Your task to perform on an android device: toggle notifications settings in the gmail app Image 0: 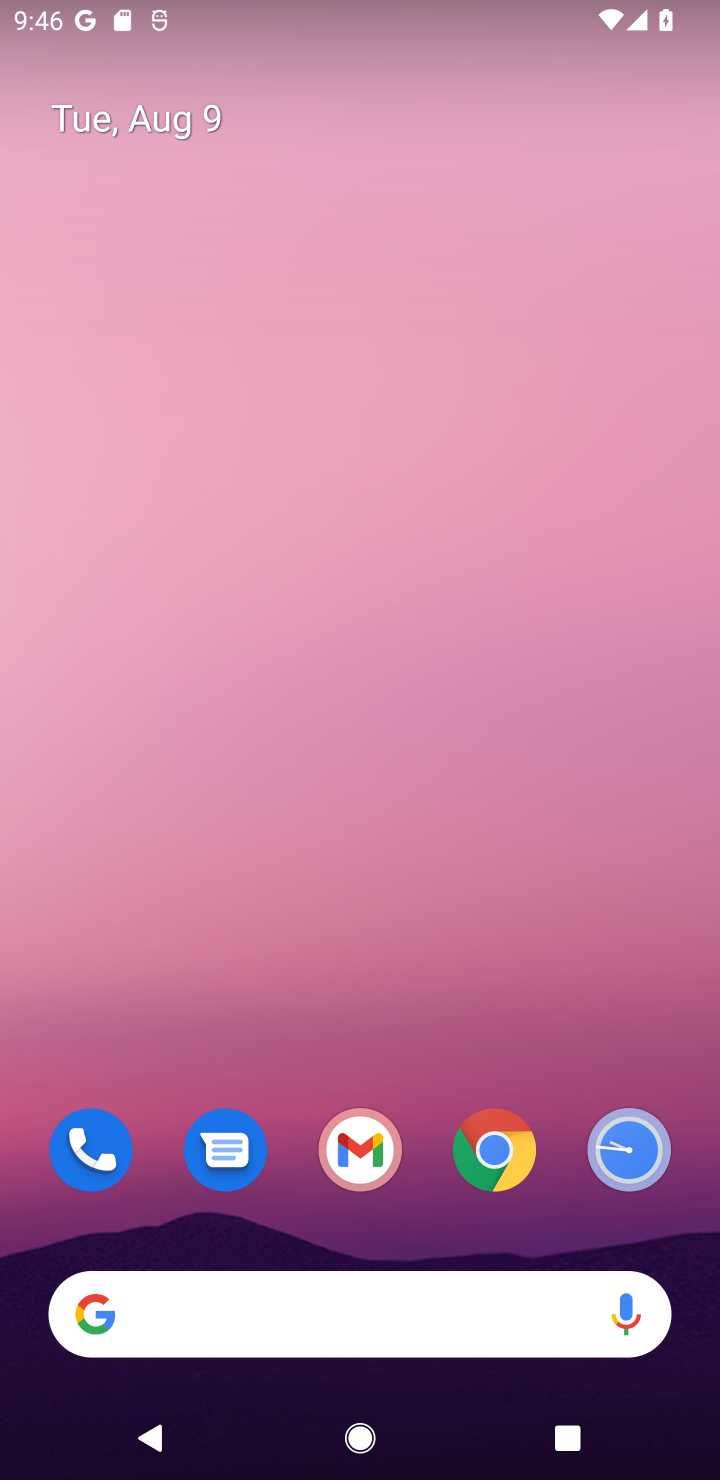
Step 0: drag from (481, 762) to (510, 503)
Your task to perform on an android device: toggle notifications settings in the gmail app Image 1: 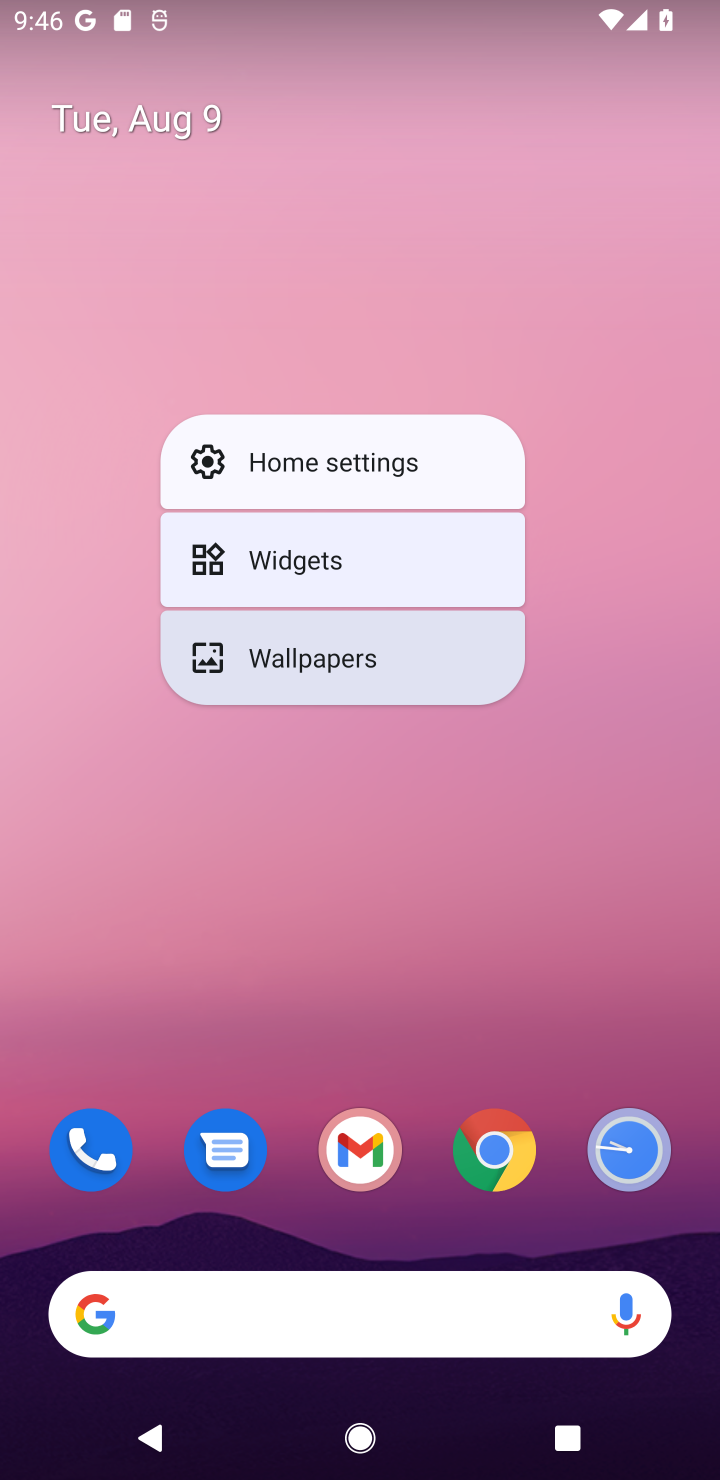
Step 1: click (525, 878)
Your task to perform on an android device: toggle notifications settings in the gmail app Image 2: 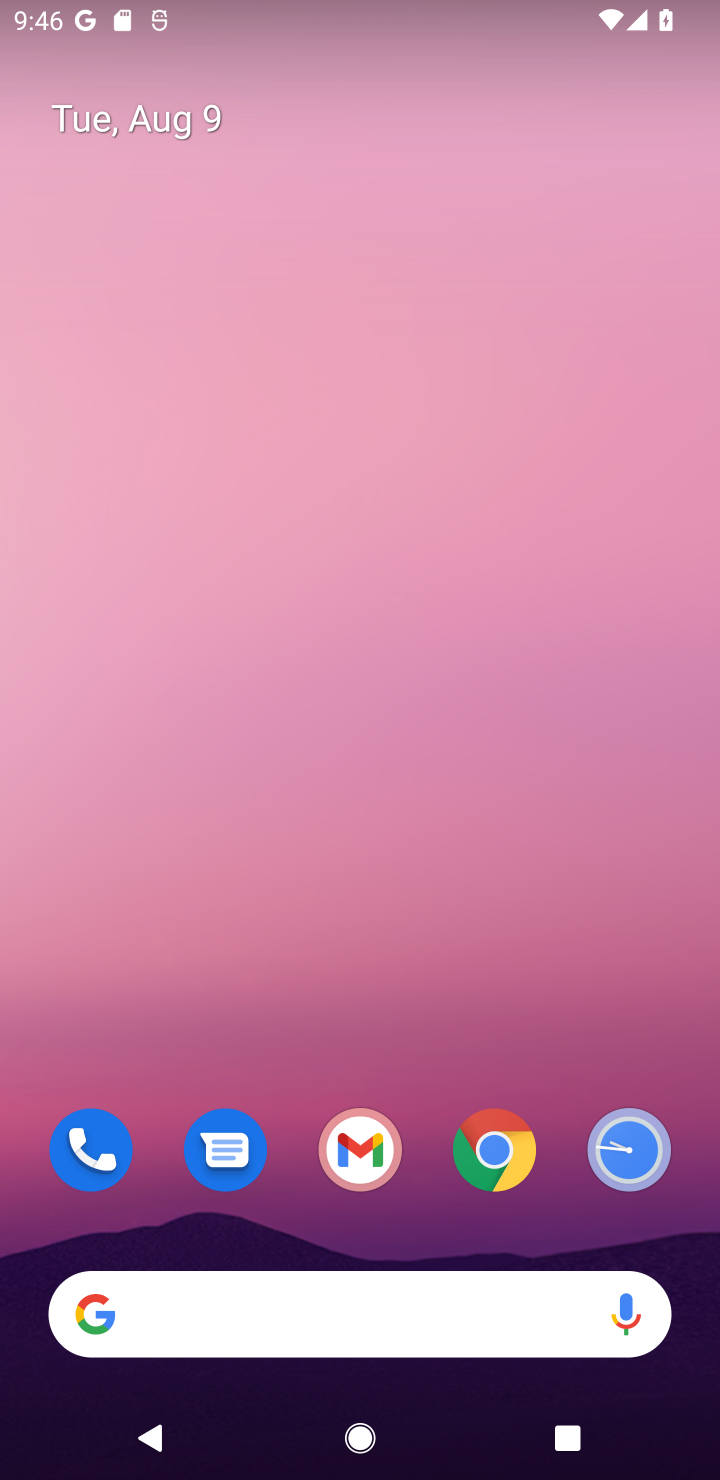
Step 2: drag from (306, 1363) to (313, 463)
Your task to perform on an android device: toggle notifications settings in the gmail app Image 3: 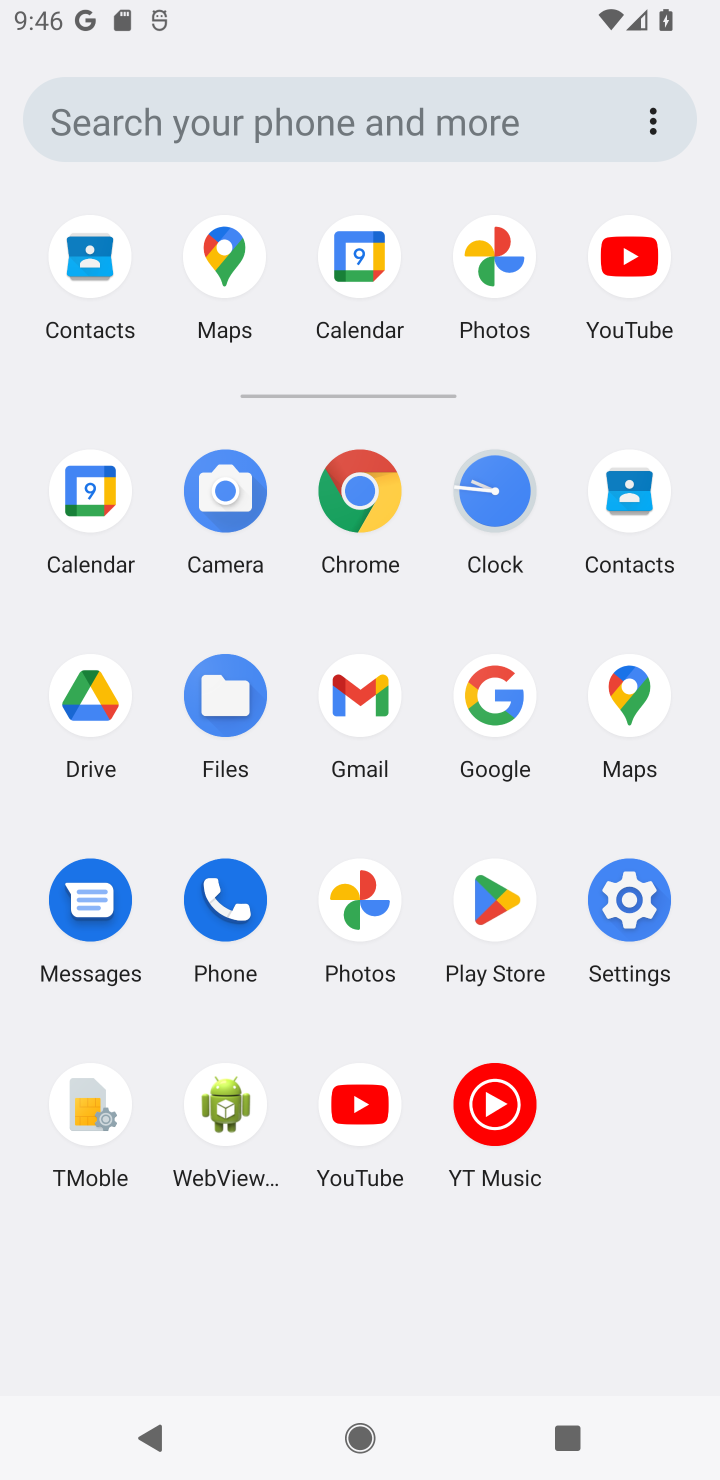
Step 3: click (335, 761)
Your task to perform on an android device: toggle notifications settings in the gmail app Image 4: 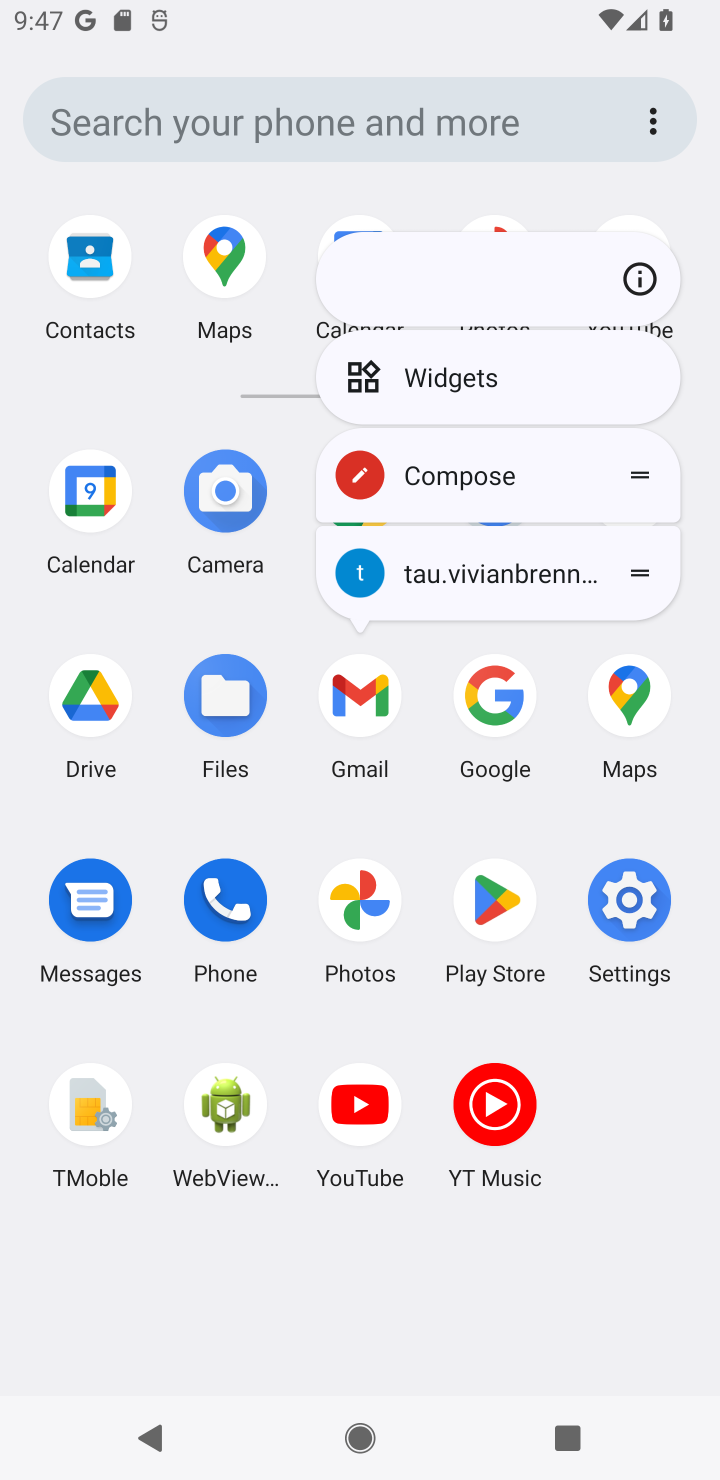
Step 4: click (323, 733)
Your task to perform on an android device: toggle notifications settings in the gmail app Image 5: 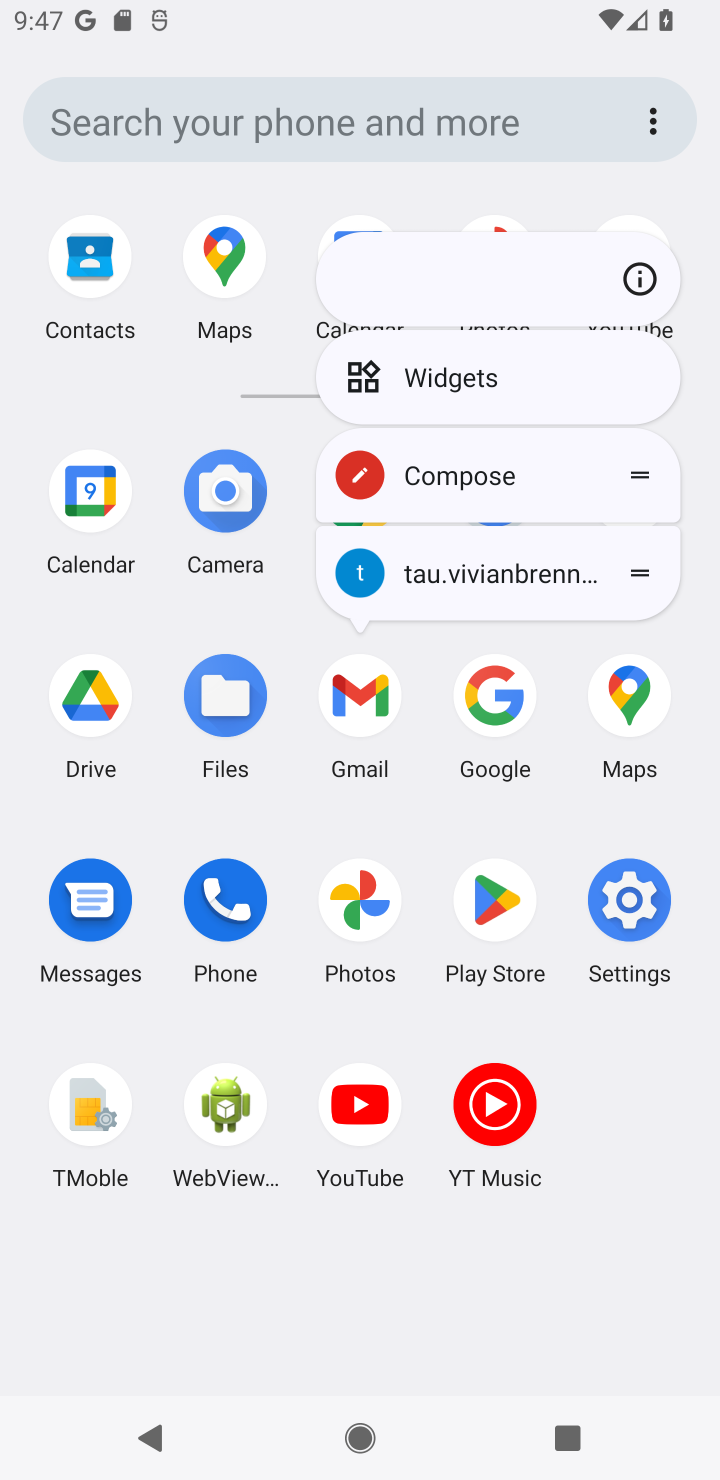
Step 5: click (331, 723)
Your task to perform on an android device: toggle notifications settings in the gmail app Image 6: 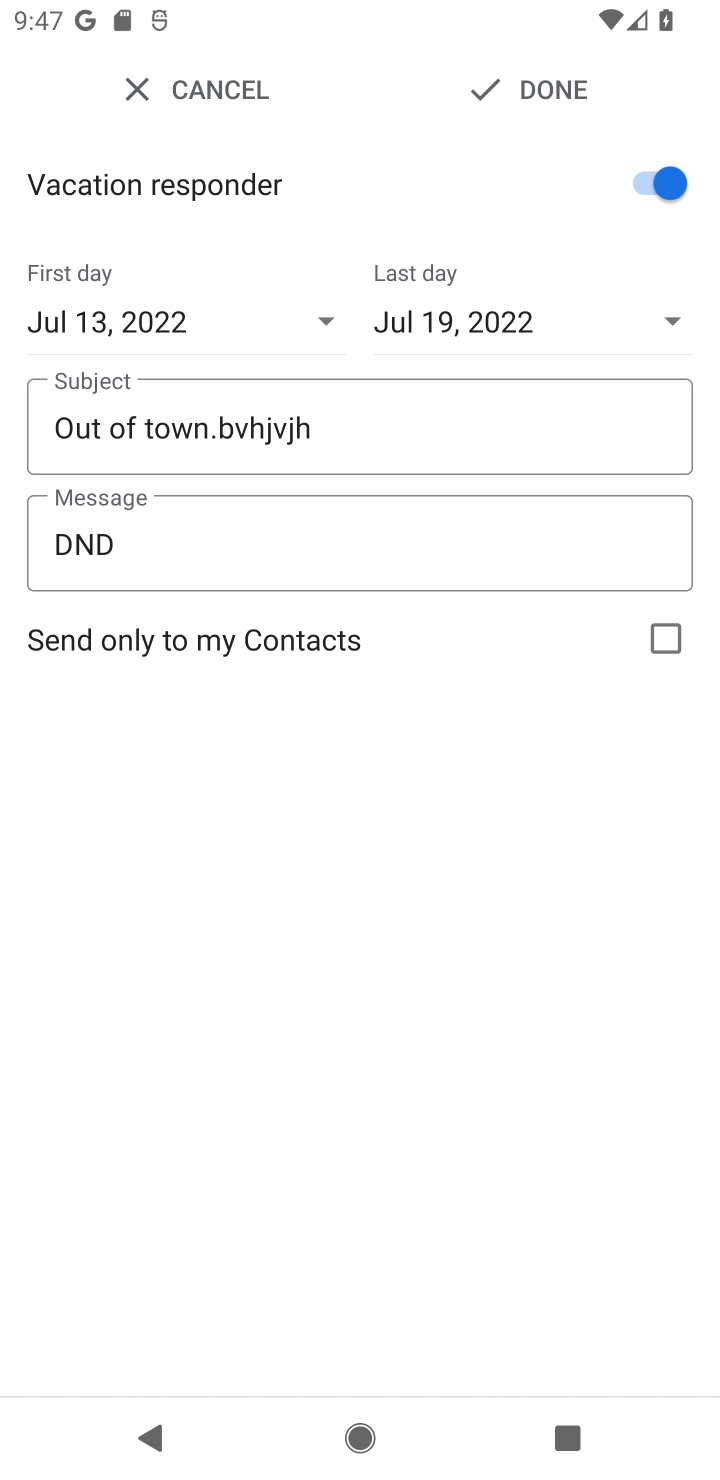
Step 6: click (186, 93)
Your task to perform on an android device: toggle notifications settings in the gmail app Image 7: 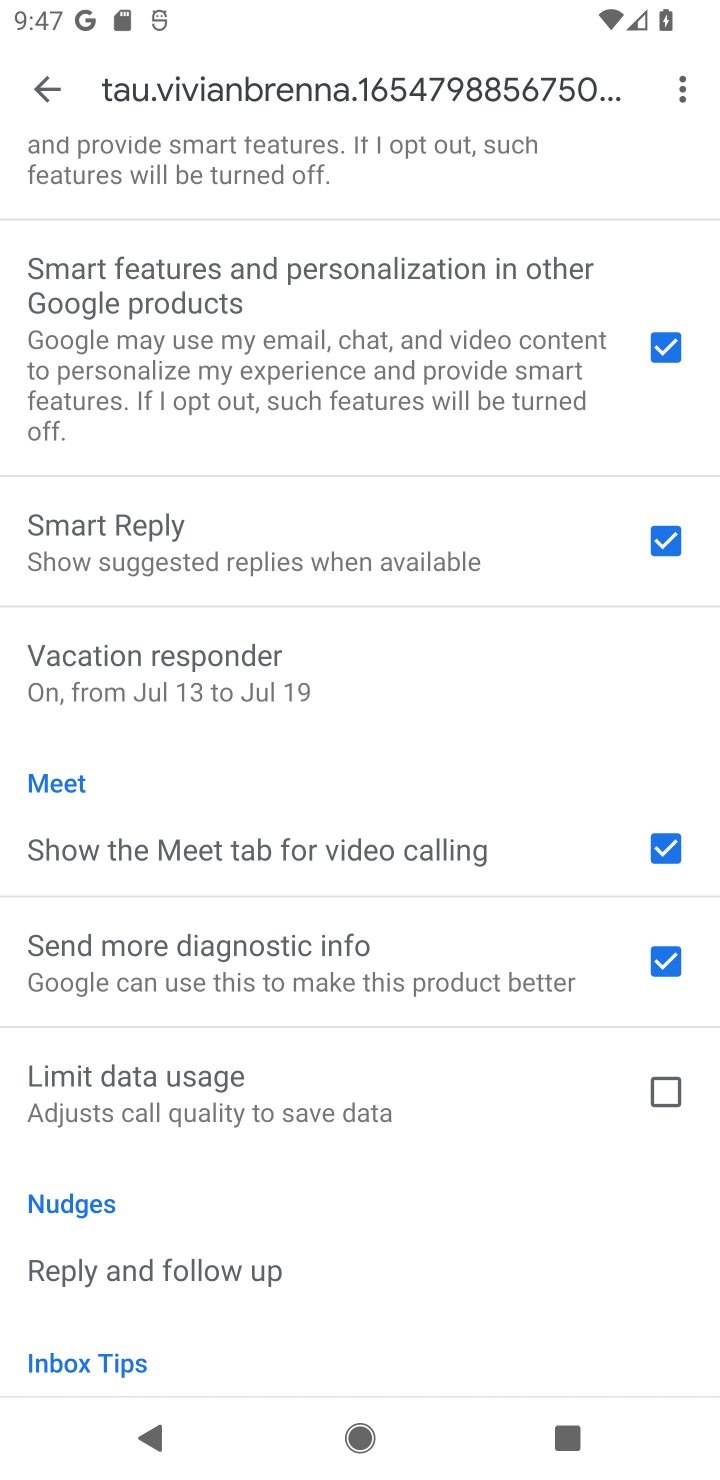
Step 7: click (55, 95)
Your task to perform on an android device: toggle notifications settings in the gmail app Image 8: 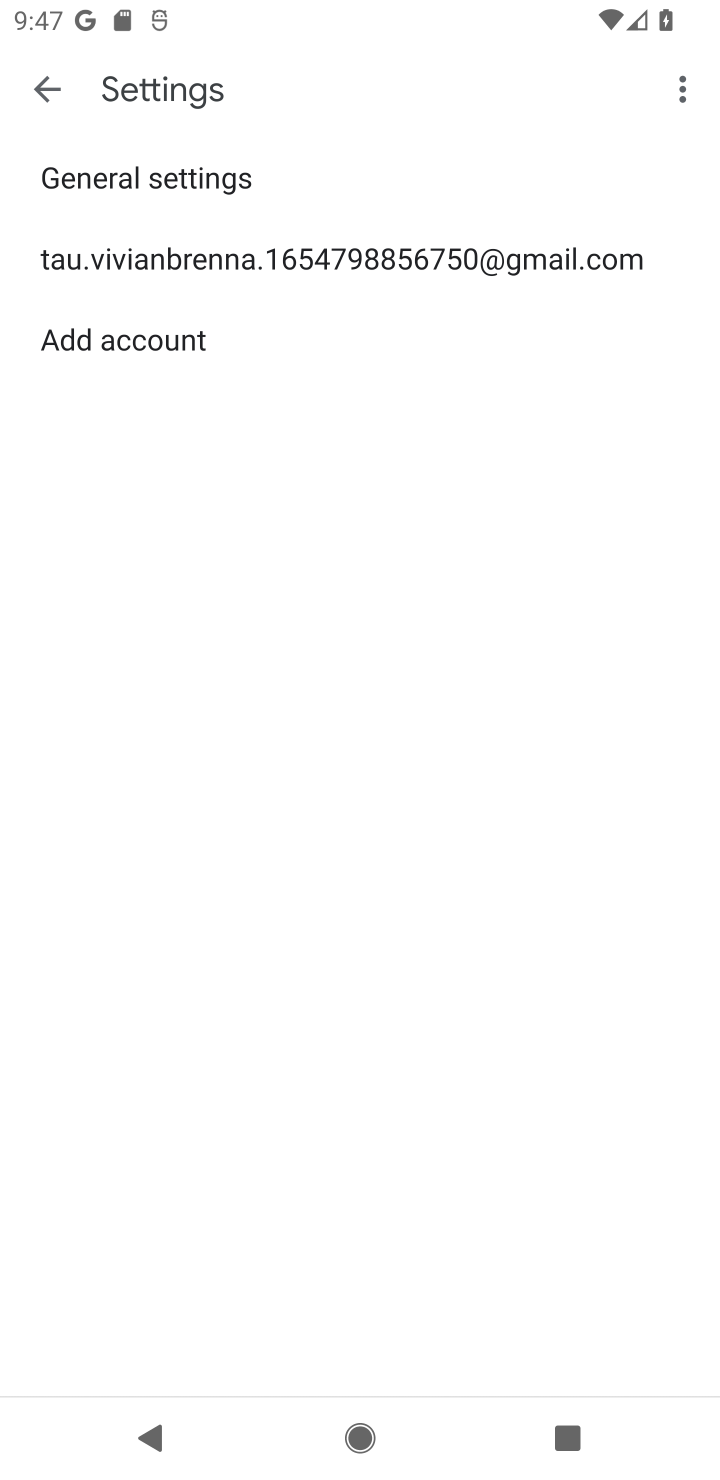
Step 8: click (91, 170)
Your task to perform on an android device: toggle notifications settings in the gmail app Image 9: 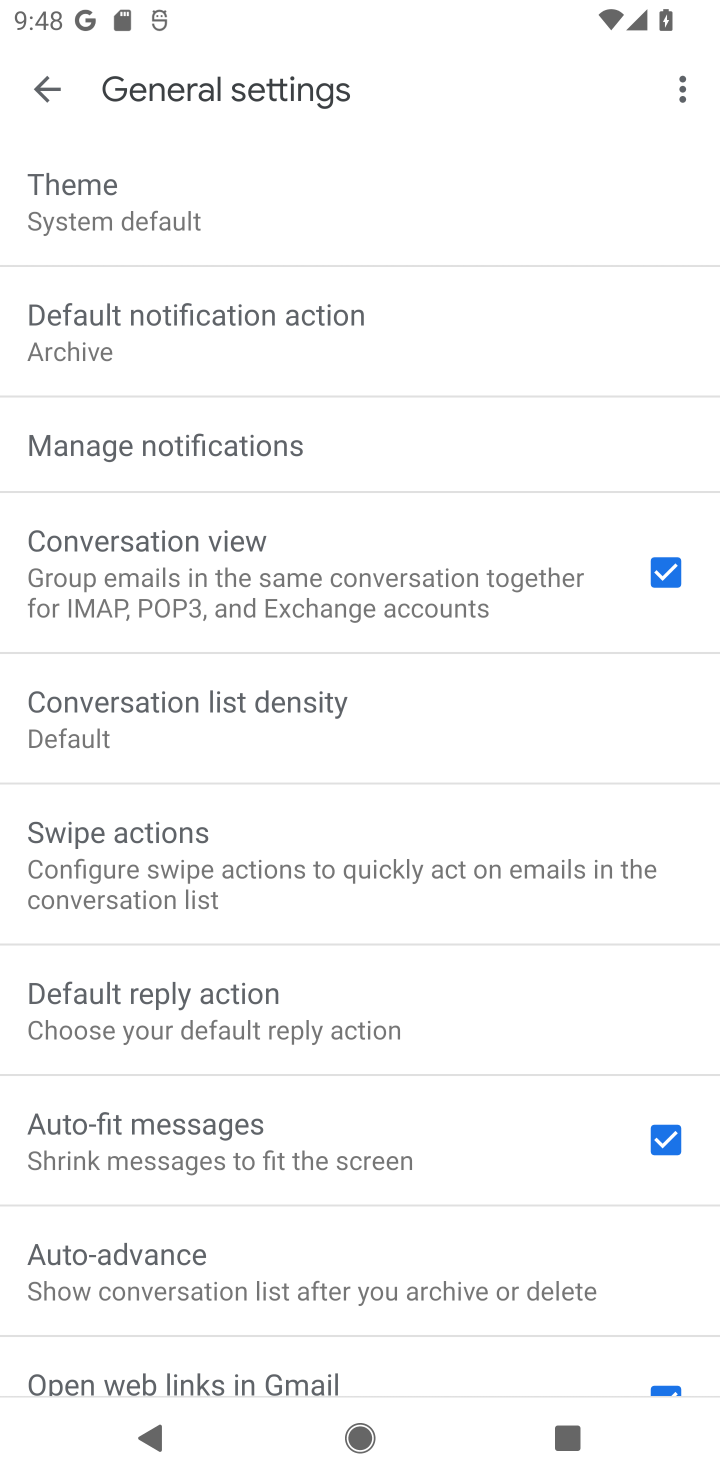
Step 9: click (272, 456)
Your task to perform on an android device: toggle notifications settings in the gmail app Image 10: 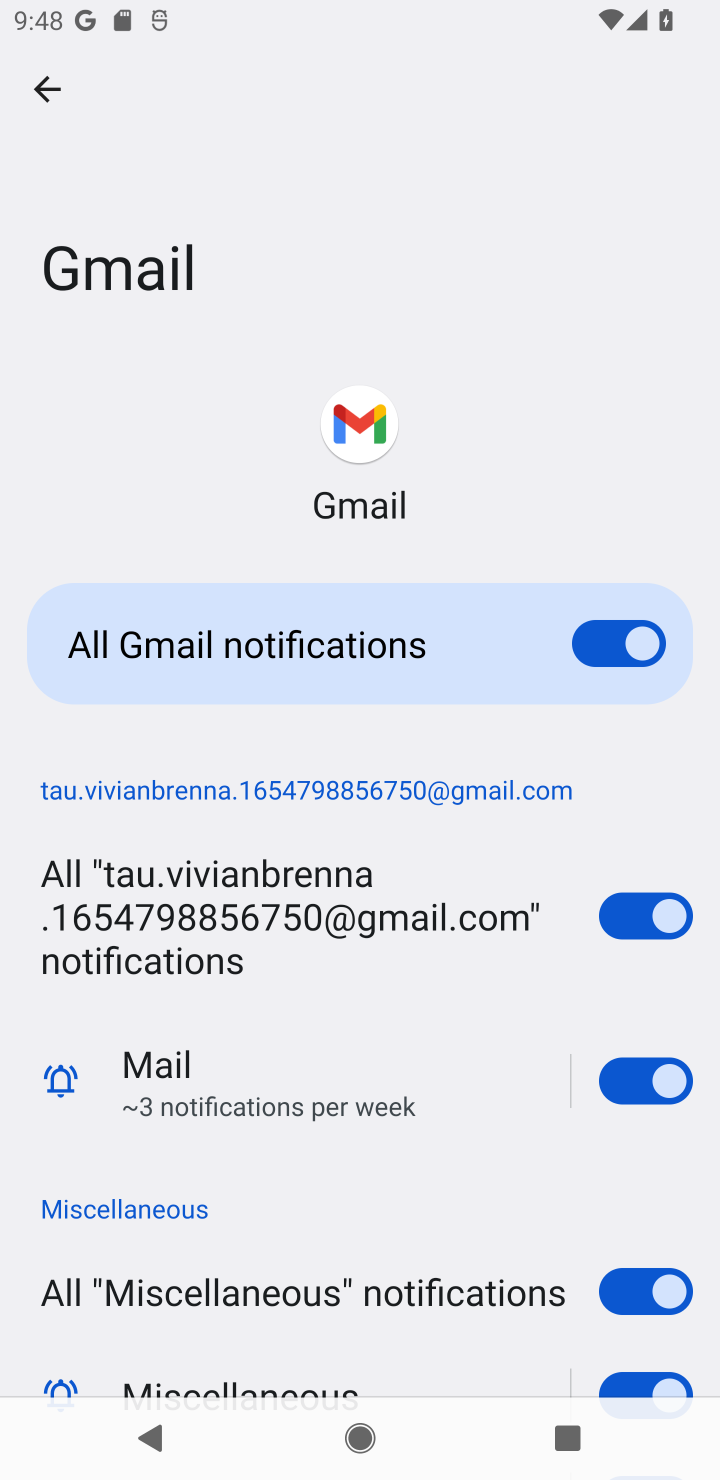
Step 10: click (559, 649)
Your task to perform on an android device: toggle notifications settings in the gmail app Image 11: 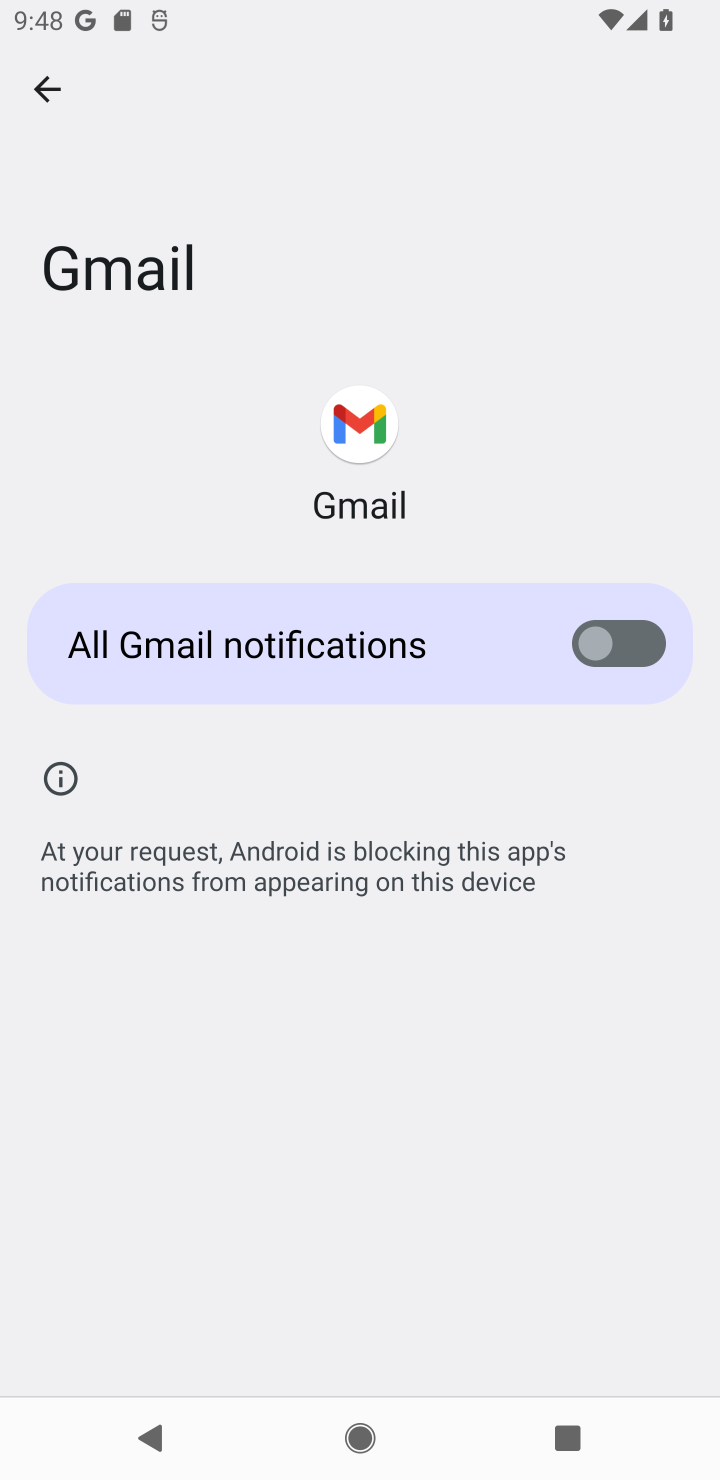
Step 11: task complete